Your task to perform on an android device: change the clock display to show seconds Image 0: 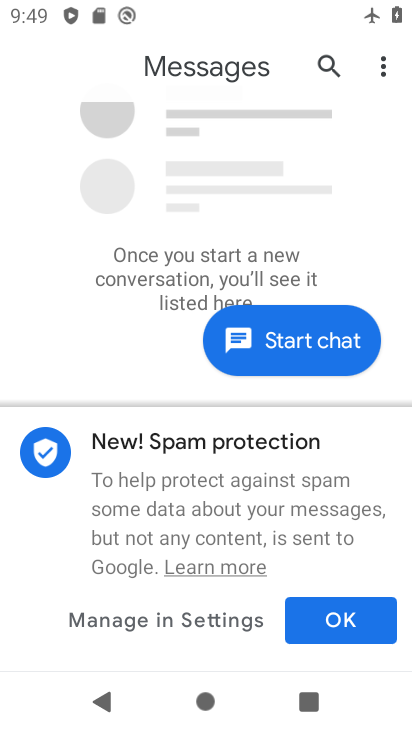
Step 0: press home button
Your task to perform on an android device: change the clock display to show seconds Image 1: 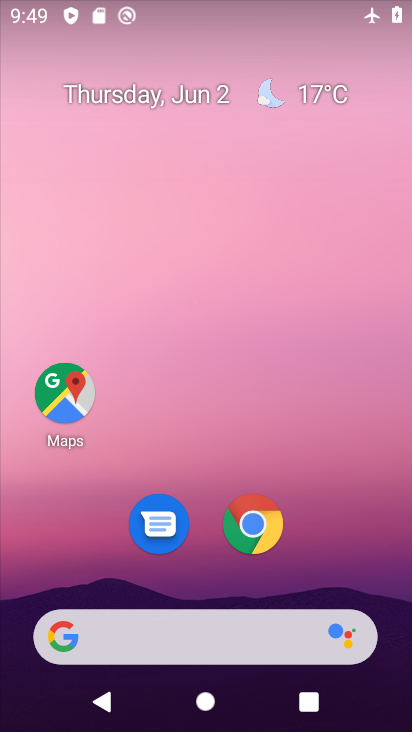
Step 1: drag from (322, 512) to (270, 9)
Your task to perform on an android device: change the clock display to show seconds Image 2: 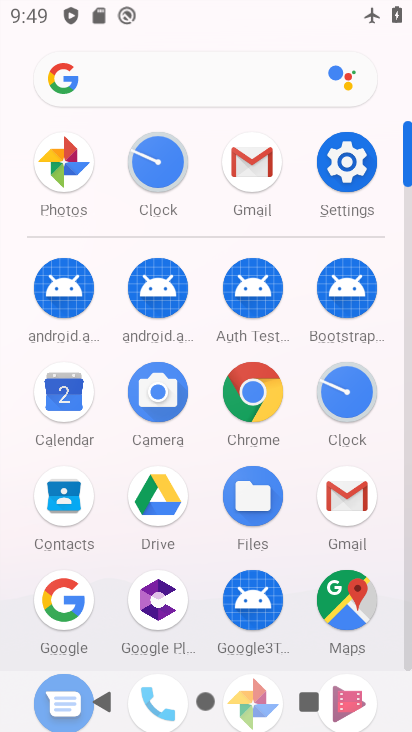
Step 2: click (347, 387)
Your task to perform on an android device: change the clock display to show seconds Image 3: 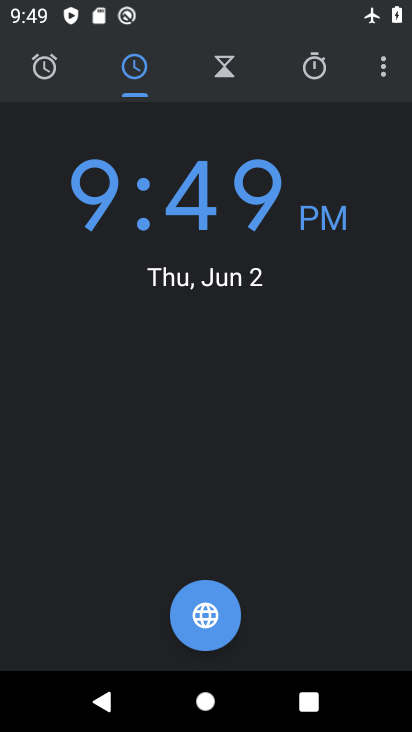
Step 3: click (383, 64)
Your task to perform on an android device: change the clock display to show seconds Image 4: 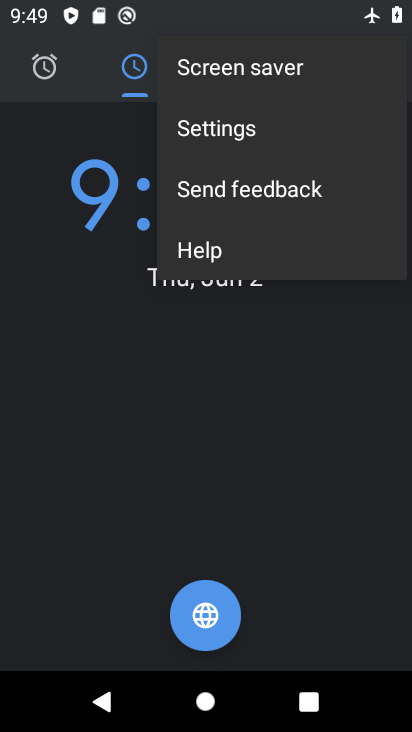
Step 4: click (326, 128)
Your task to perform on an android device: change the clock display to show seconds Image 5: 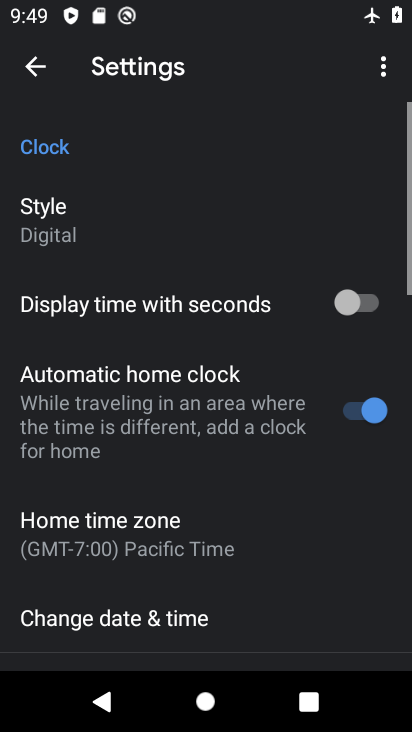
Step 5: click (360, 303)
Your task to perform on an android device: change the clock display to show seconds Image 6: 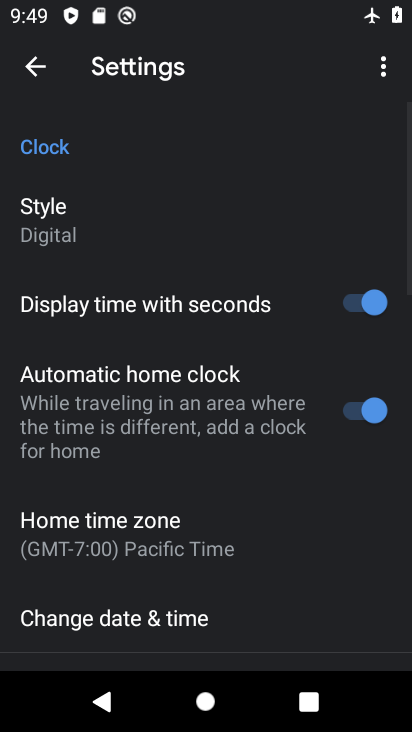
Step 6: task complete